Your task to perform on an android device: toggle notifications settings in the gmail app Image 0: 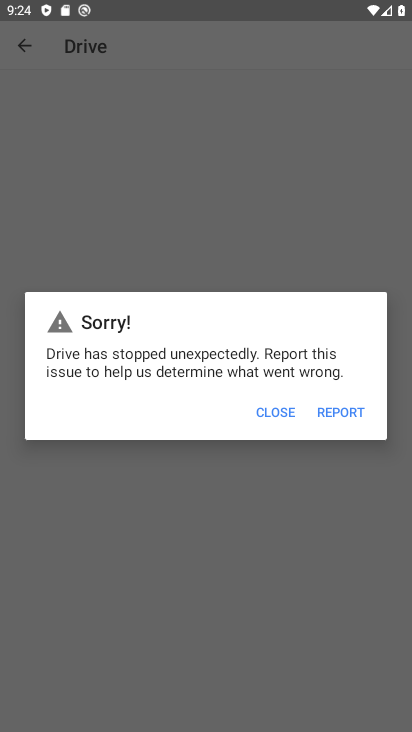
Step 0: press home button
Your task to perform on an android device: toggle notifications settings in the gmail app Image 1: 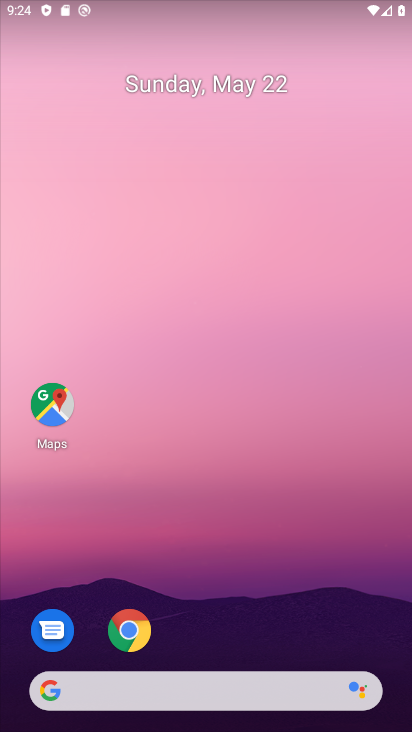
Step 1: drag from (396, 629) to (384, 175)
Your task to perform on an android device: toggle notifications settings in the gmail app Image 2: 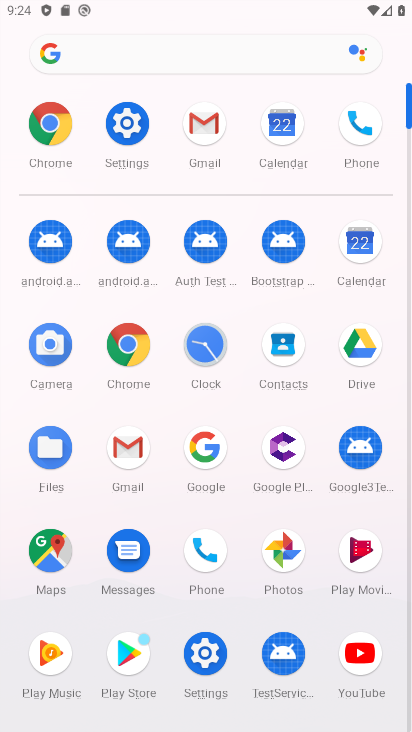
Step 2: click (133, 446)
Your task to perform on an android device: toggle notifications settings in the gmail app Image 3: 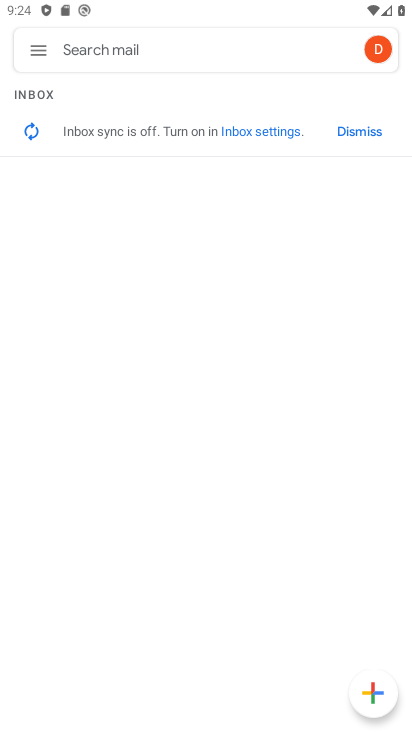
Step 3: click (42, 47)
Your task to perform on an android device: toggle notifications settings in the gmail app Image 4: 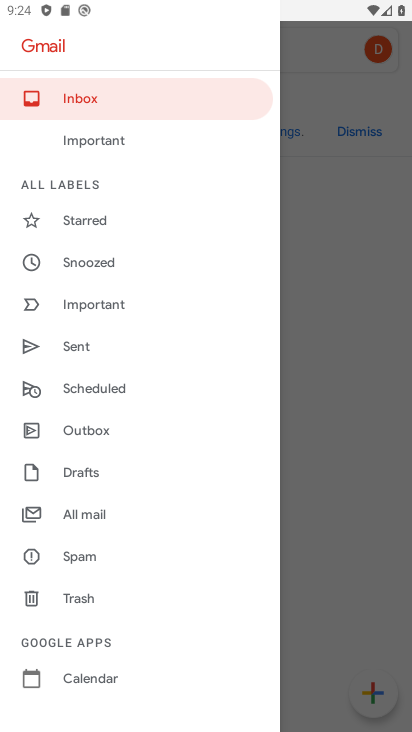
Step 4: drag from (179, 674) to (205, 327)
Your task to perform on an android device: toggle notifications settings in the gmail app Image 5: 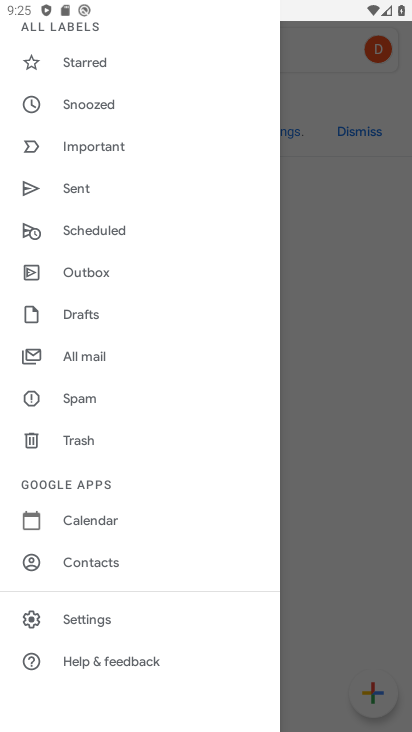
Step 5: click (85, 626)
Your task to perform on an android device: toggle notifications settings in the gmail app Image 6: 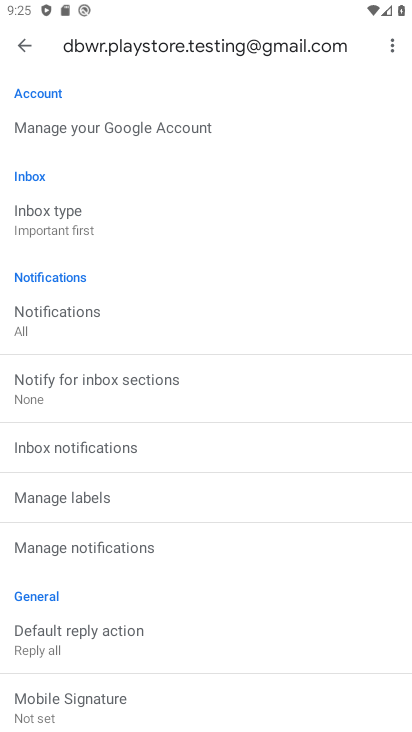
Step 6: click (20, 41)
Your task to perform on an android device: toggle notifications settings in the gmail app Image 7: 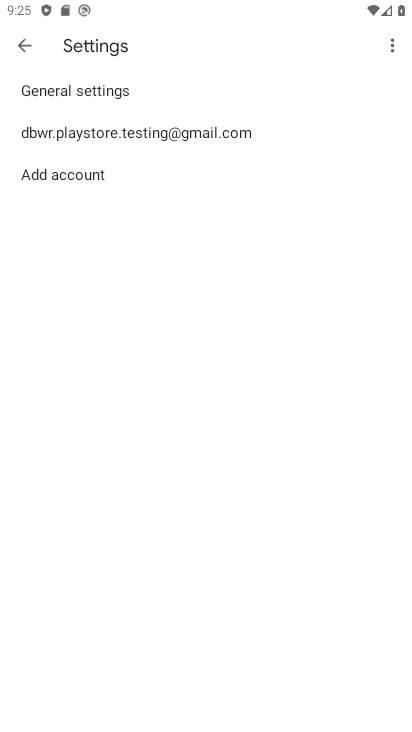
Step 7: click (63, 91)
Your task to perform on an android device: toggle notifications settings in the gmail app Image 8: 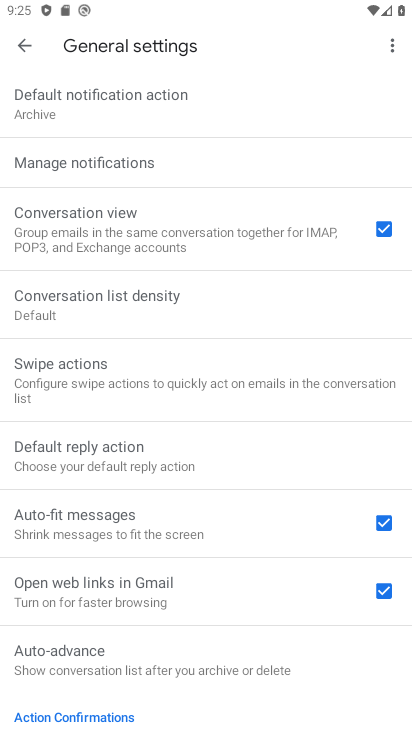
Step 8: drag from (303, 137) to (280, 470)
Your task to perform on an android device: toggle notifications settings in the gmail app Image 9: 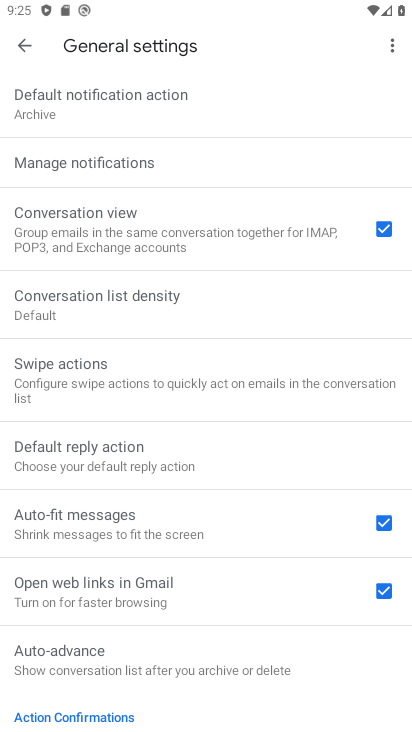
Step 9: click (90, 167)
Your task to perform on an android device: toggle notifications settings in the gmail app Image 10: 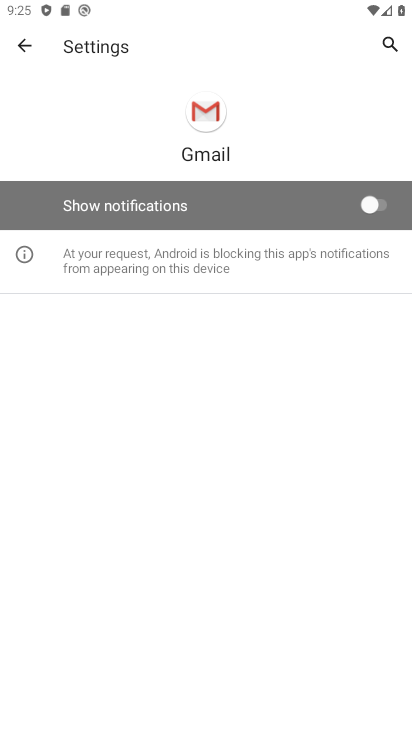
Step 10: click (378, 201)
Your task to perform on an android device: toggle notifications settings in the gmail app Image 11: 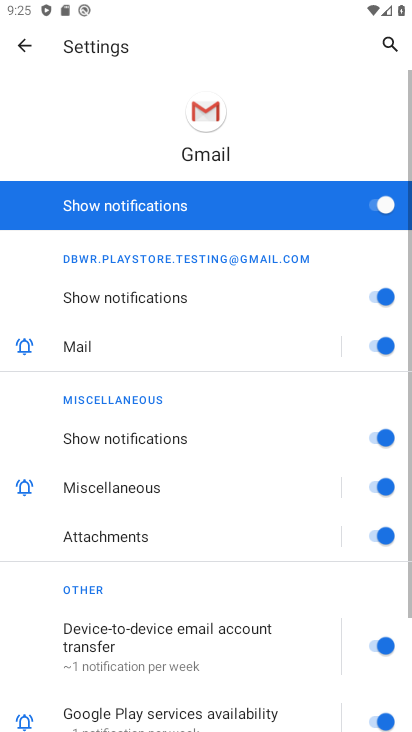
Step 11: task complete